Your task to perform on an android device: Open Google Maps and go to "Timeline" Image 0: 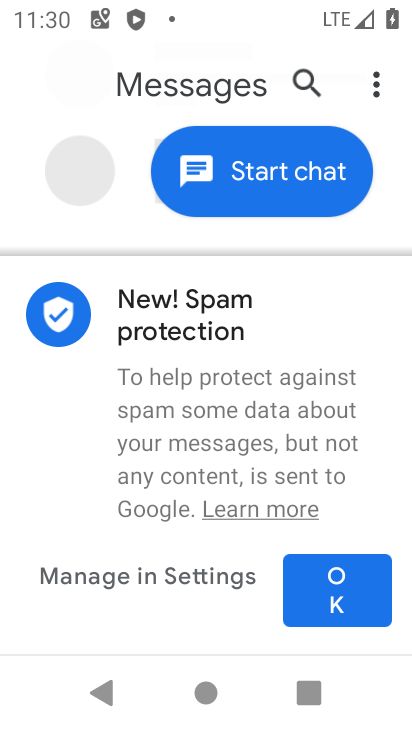
Step 0: press home button
Your task to perform on an android device: Open Google Maps and go to "Timeline" Image 1: 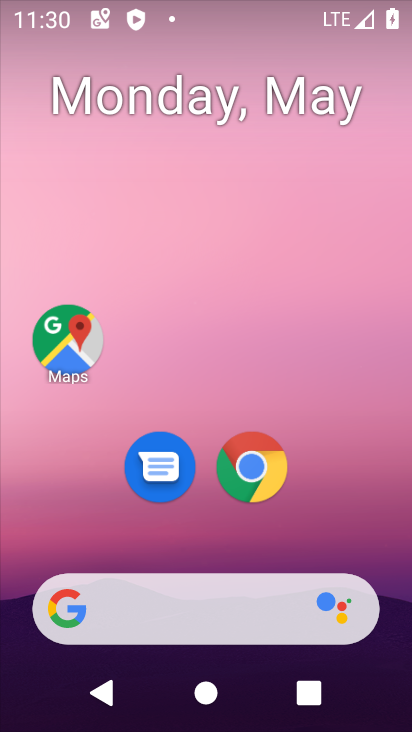
Step 1: click (61, 343)
Your task to perform on an android device: Open Google Maps and go to "Timeline" Image 2: 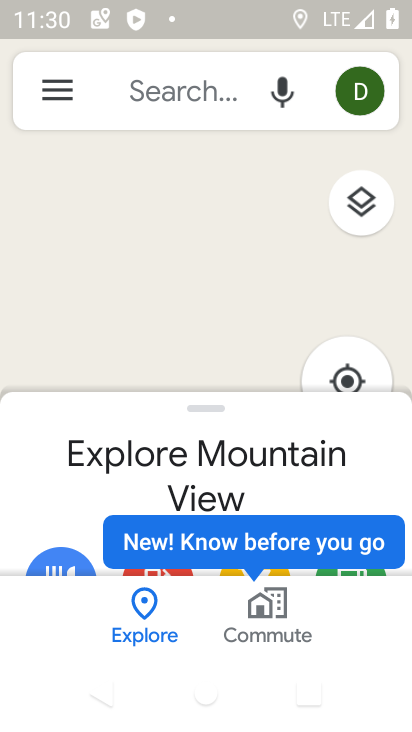
Step 2: click (62, 90)
Your task to perform on an android device: Open Google Maps and go to "Timeline" Image 3: 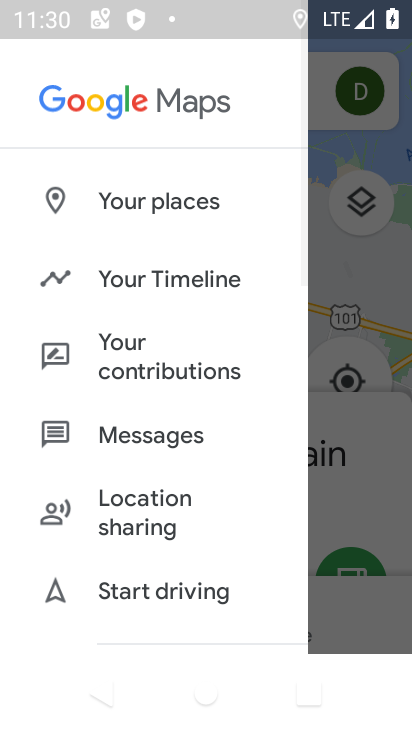
Step 3: click (141, 281)
Your task to perform on an android device: Open Google Maps and go to "Timeline" Image 4: 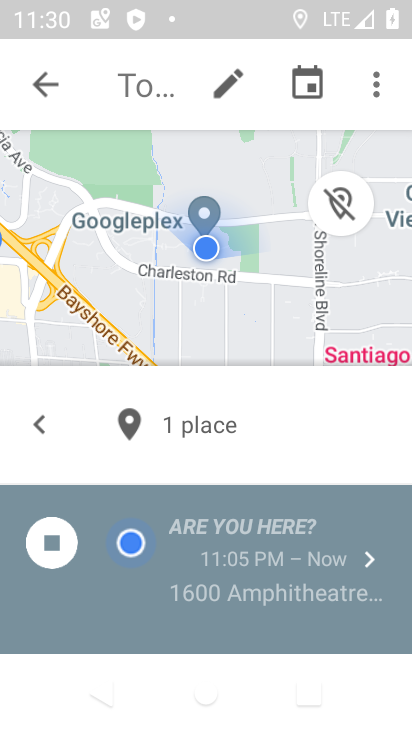
Step 4: task complete